Your task to perform on an android device: What's on my calendar today? Image 0: 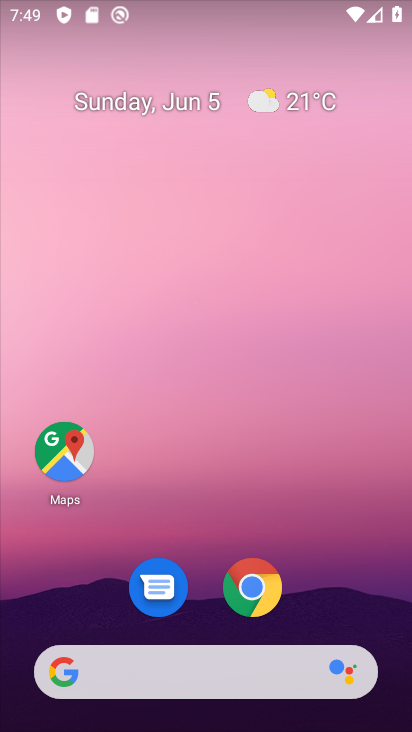
Step 0: press home button
Your task to perform on an android device: What's on my calendar today? Image 1: 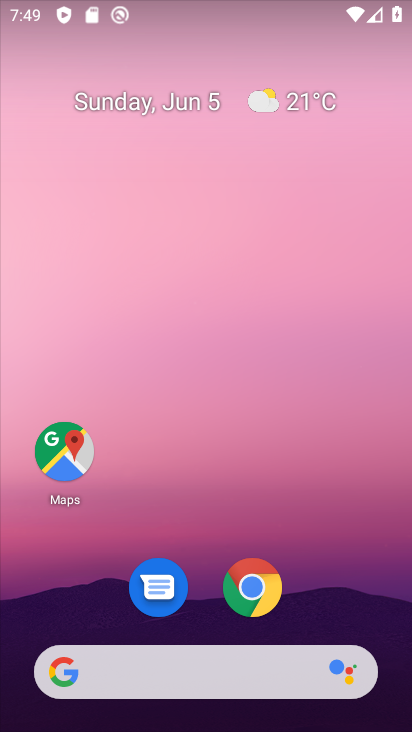
Step 1: drag from (200, 621) to (214, 65)
Your task to perform on an android device: What's on my calendar today? Image 2: 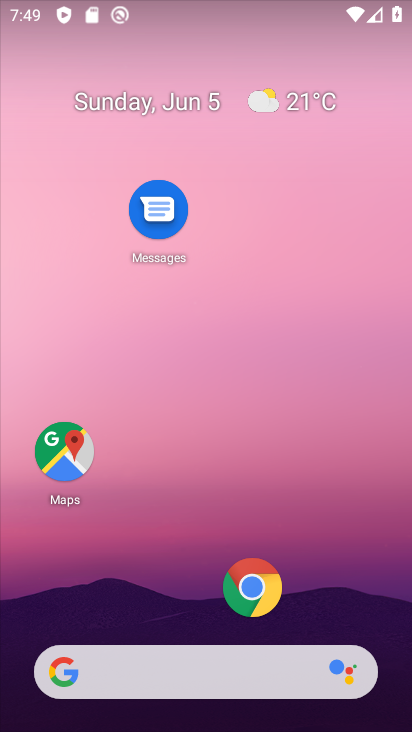
Step 2: drag from (345, 583) to (360, 49)
Your task to perform on an android device: What's on my calendar today? Image 3: 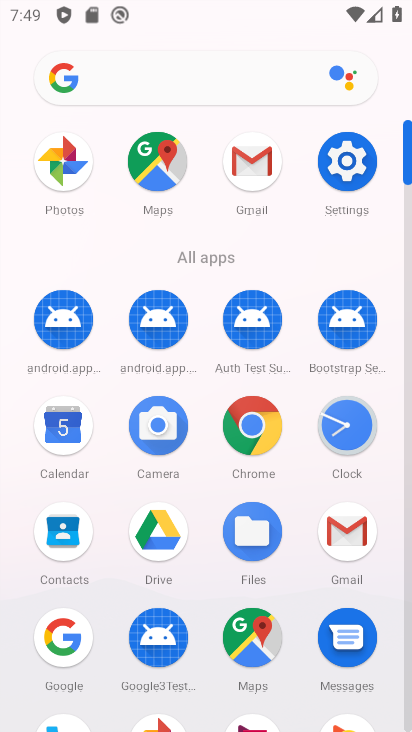
Step 3: click (63, 424)
Your task to perform on an android device: What's on my calendar today? Image 4: 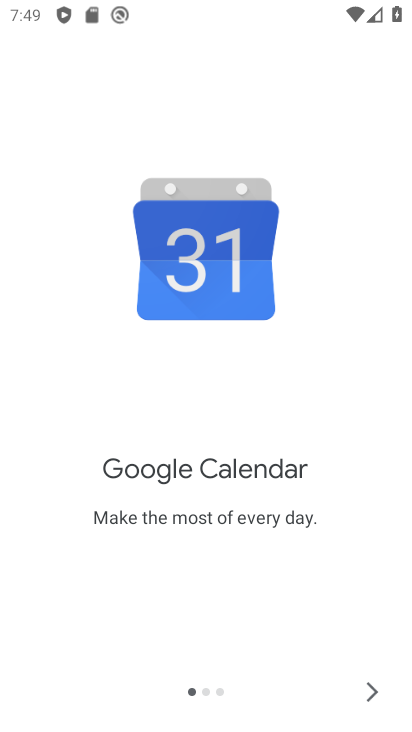
Step 4: click (373, 690)
Your task to perform on an android device: What's on my calendar today? Image 5: 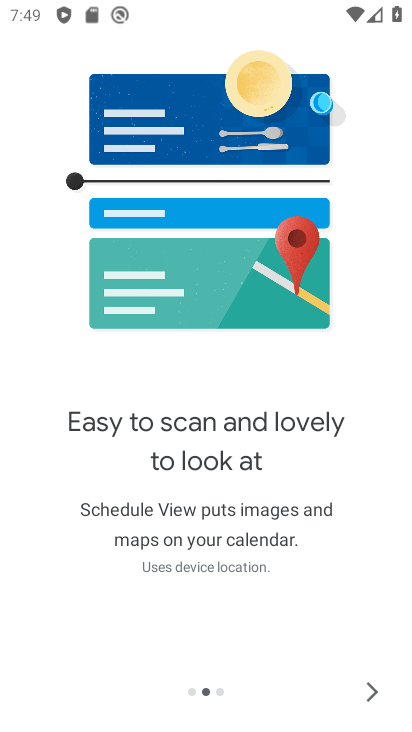
Step 5: click (373, 689)
Your task to perform on an android device: What's on my calendar today? Image 6: 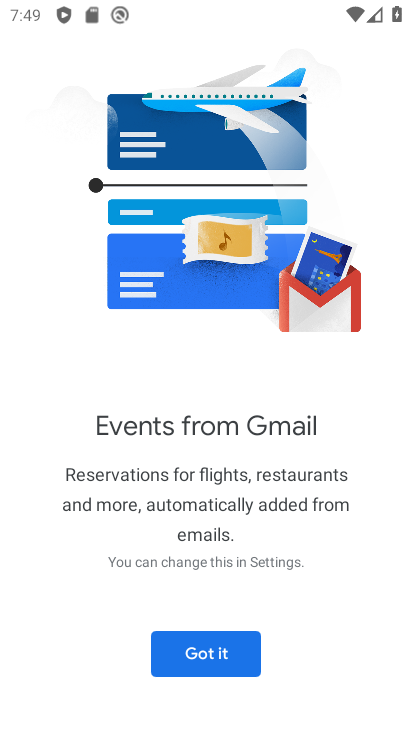
Step 6: click (373, 689)
Your task to perform on an android device: What's on my calendar today? Image 7: 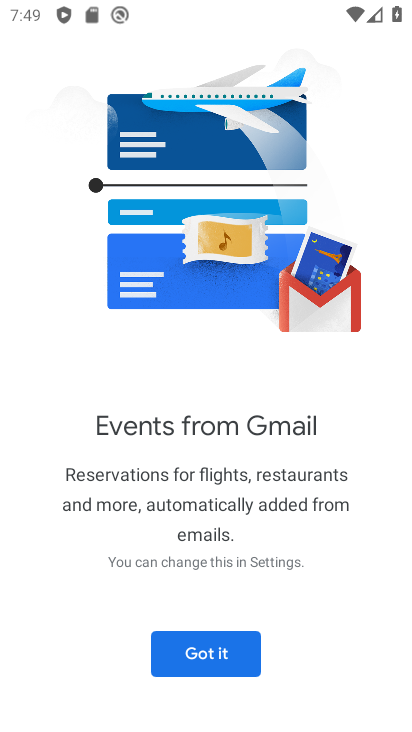
Step 7: click (212, 647)
Your task to perform on an android device: What's on my calendar today? Image 8: 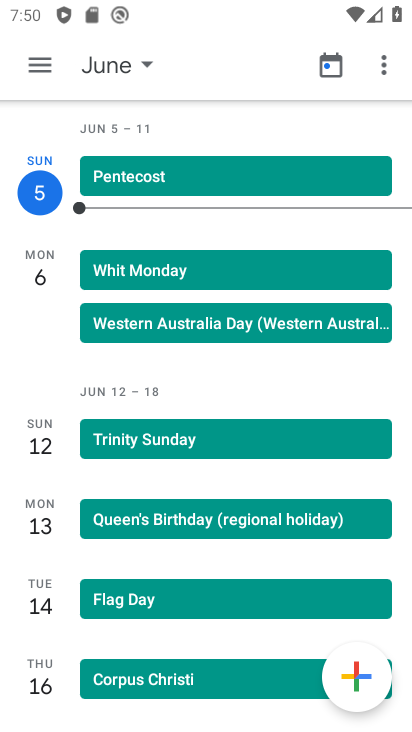
Step 8: click (44, 195)
Your task to perform on an android device: What's on my calendar today? Image 9: 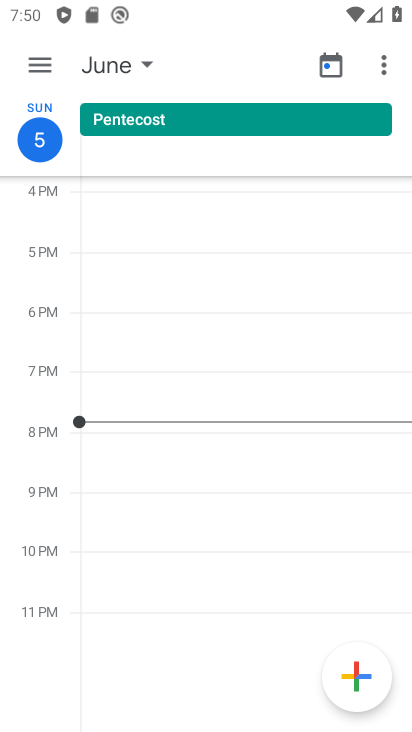
Step 9: task complete